Your task to perform on an android device: Open privacy settings Image 0: 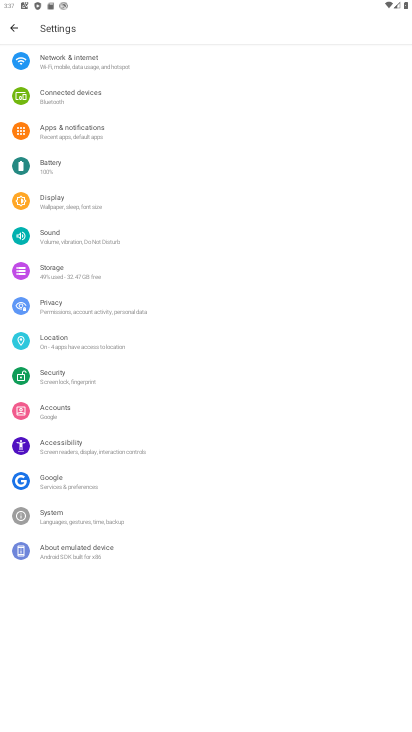
Step 0: press home button
Your task to perform on an android device: Open privacy settings Image 1: 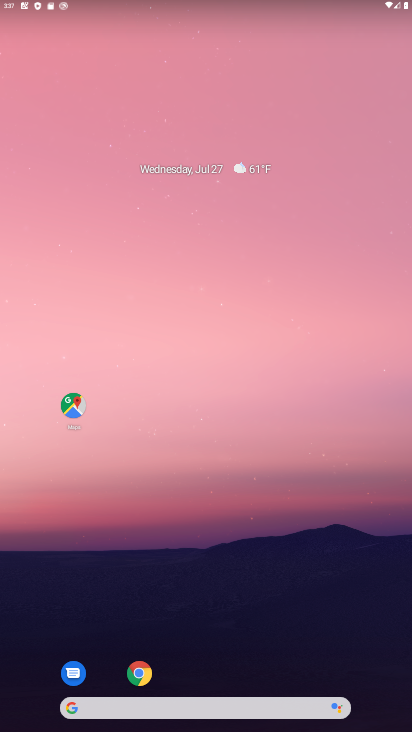
Step 1: drag from (249, 629) to (203, 139)
Your task to perform on an android device: Open privacy settings Image 2: 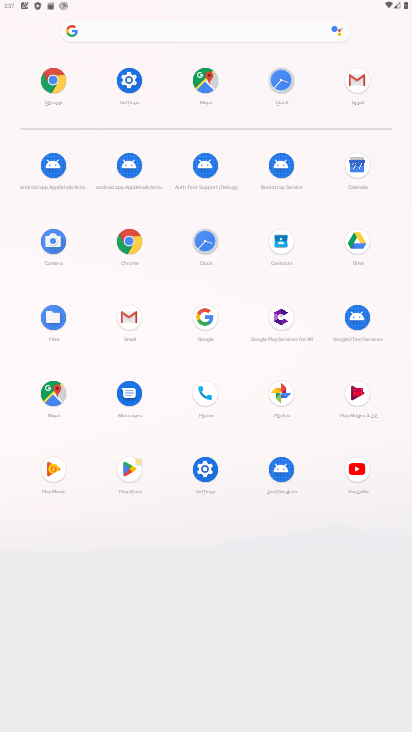
Step 2: click (205, 463)
Your task to perform on an android device: Open privacy settings Image 3: 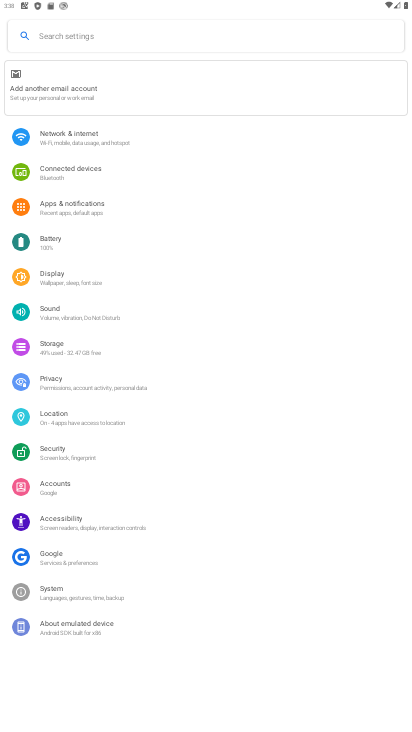
Step 3: click (63, 380)
Your task to perform on an android device: Open privacy settings Image 4: 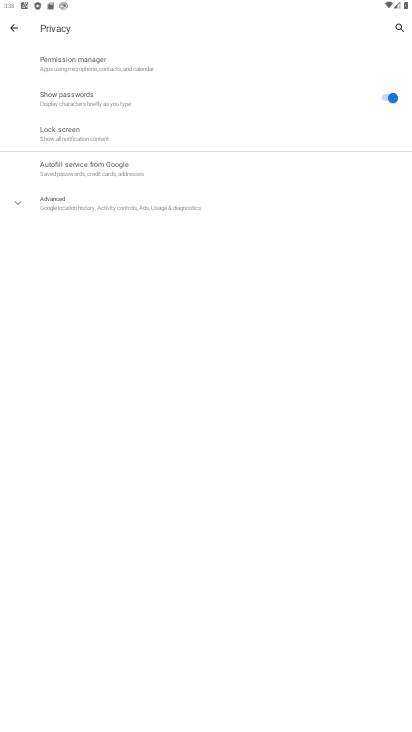
Step 4: task complete